Your task to perform on an android device: Search for pizza restaurants on Maps Image 0: 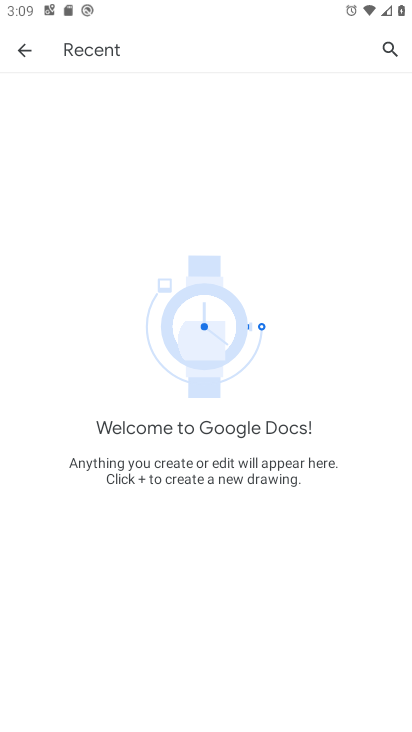
Step 0: press home button
Your task to perform on an android device: Search for pizza restaurants on Maps Image 1: 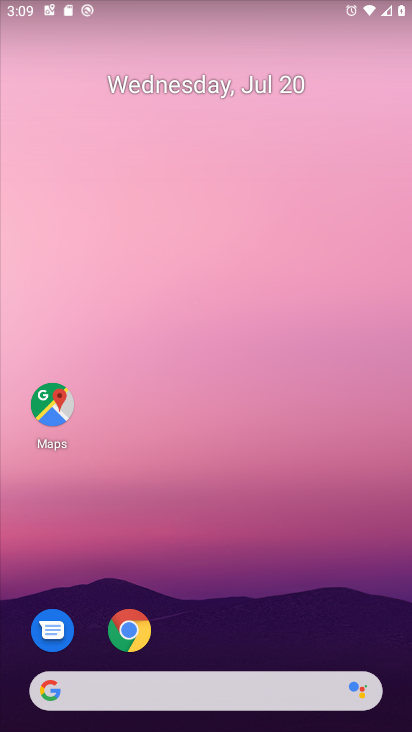
Step 1: drag from (171, 646) to (298, 174)
Your task to perform on an android device: Search for pizza restaurants on Maps Image 2: 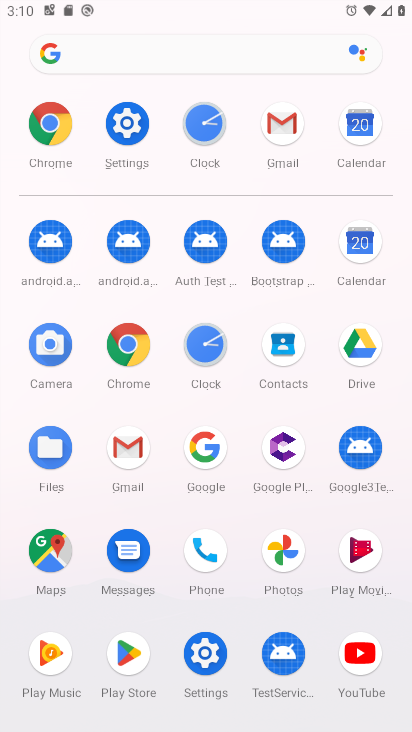
Step 2: click (53, 569)
Your task to perform on an android device: Search for pizza restaurants on Maps Image 3: 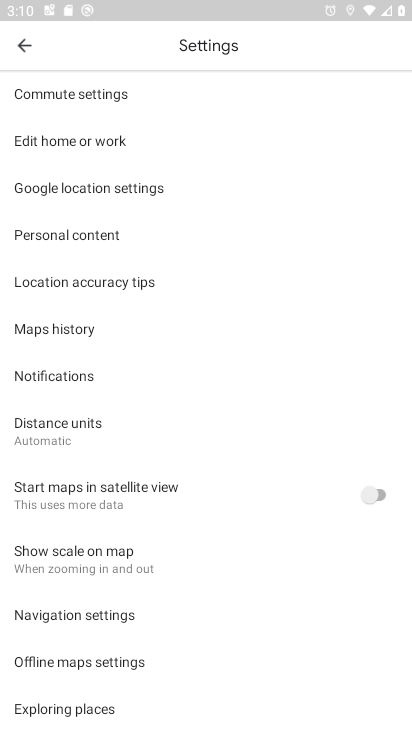
Step 3: click (23, 52)
Your task to perform on an android device: Search for pizza restaurants on Maps Image 4: 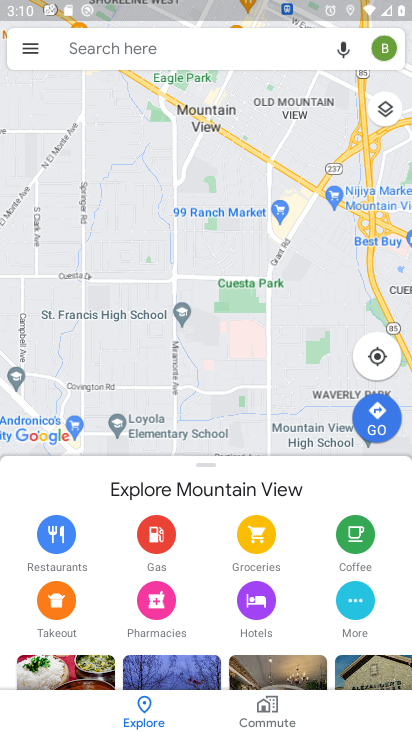
Step 4: click (122, 52)
Your task to perform on an android device: Search for pizza restaurants on Maps Image 5: 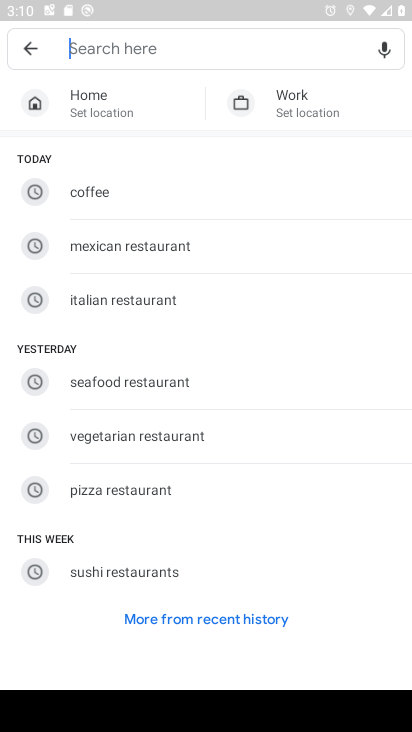
Step 5: click (107, 497)
Your task to perform on an android device: Search for pizza restaurants on Maps Image 6: 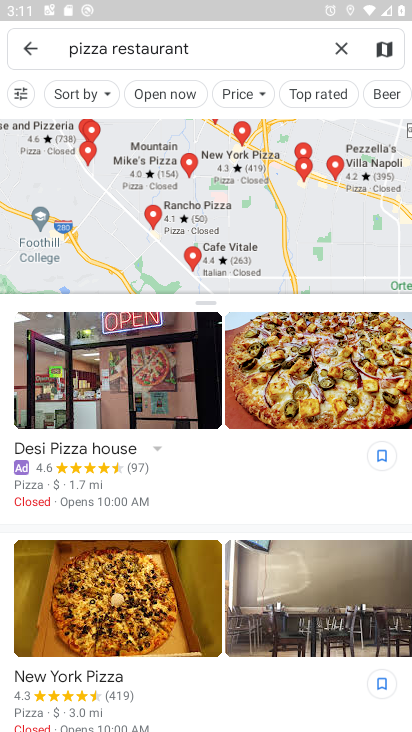
Step 6: task complete